Your task to perform on an android device: turn on showing notifications on the lock screen Image 0: 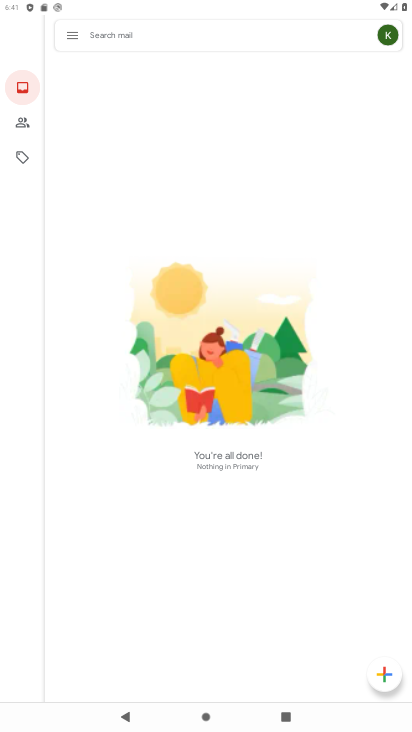
Step 0: press home button
Your task to perform on an android device: turn on showing notifications on the lock screen Image 1: 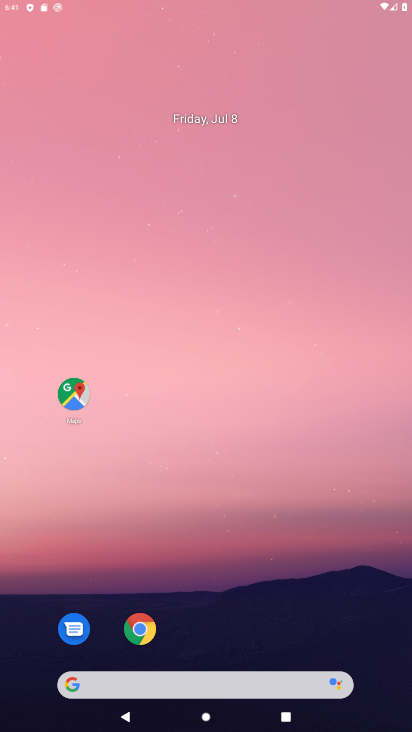
Step 1: drag from (318, 595) to (304, 345)
Your task to perform on an android device: turn on showing notifications on the lock screen Image 2: 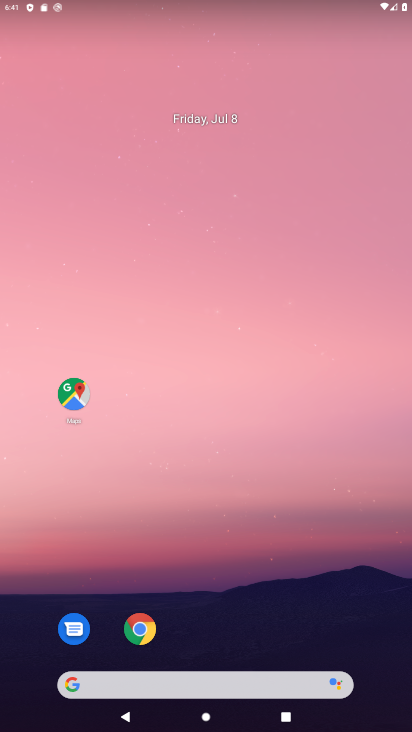
Step 2: drag from (346, 547) to (309, 115)
Your task to perform on an android device: turn on showing notifications on the lock screen Image 3: 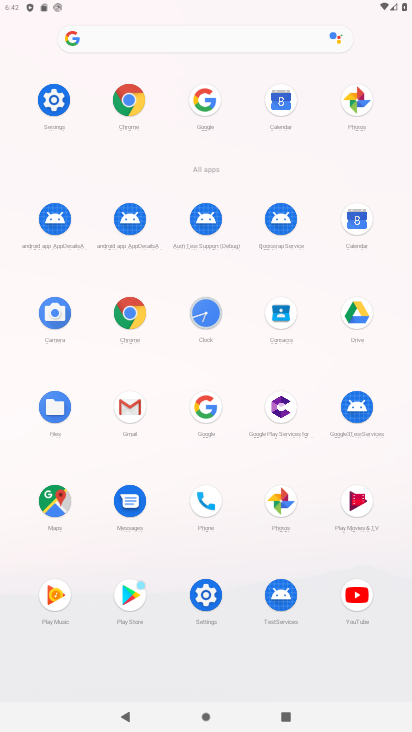
Step 3: click (40, 96)
Your task to perform on an android device: turn on showing notifications on the lock screen Image 4: 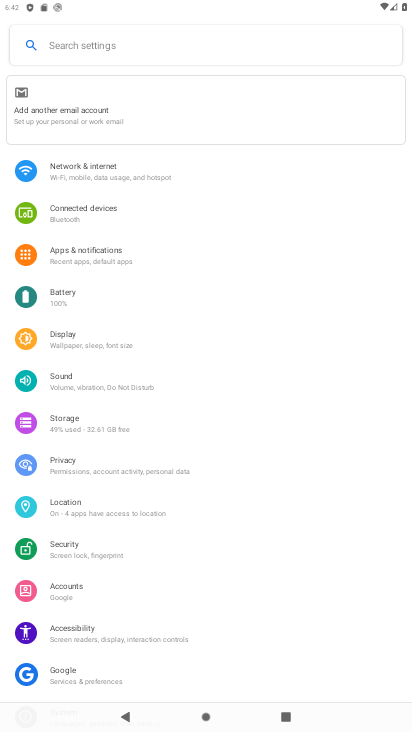
Step 4: click (77, 256)
Your task to perform on an android device: turn on showing notifications on the lock screen Image 5: 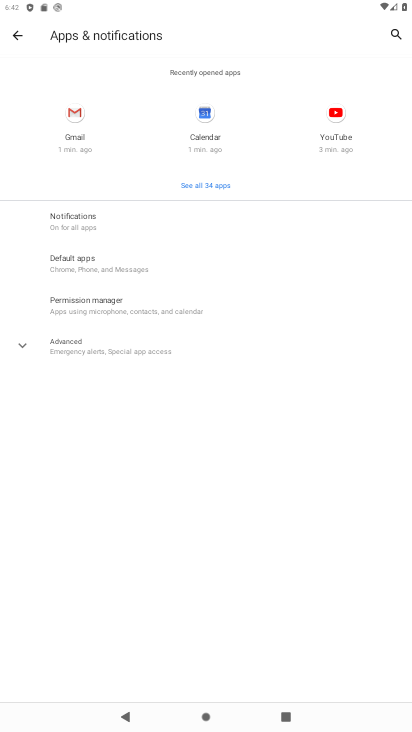
Step 5: click (81, 352)
Your task to perform on an android device: turn on showing notifications on the lock screen Image 6: 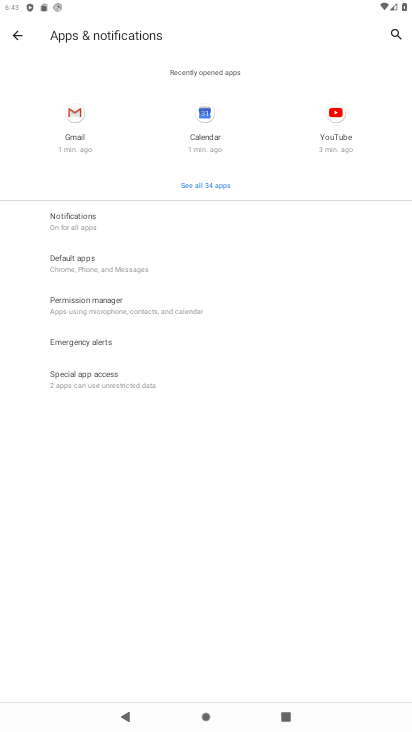
Step 6: click (120, 224)
Your task to perform on an android device: turn on showing notifications on the lock screen Image 7: 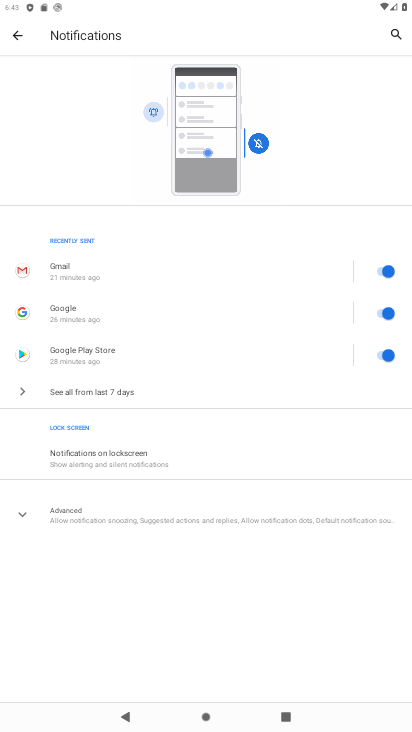
Step 7: click (73, 503)
Your task to perform on an android device: turn on showing notifications on the lock screen Image 8: 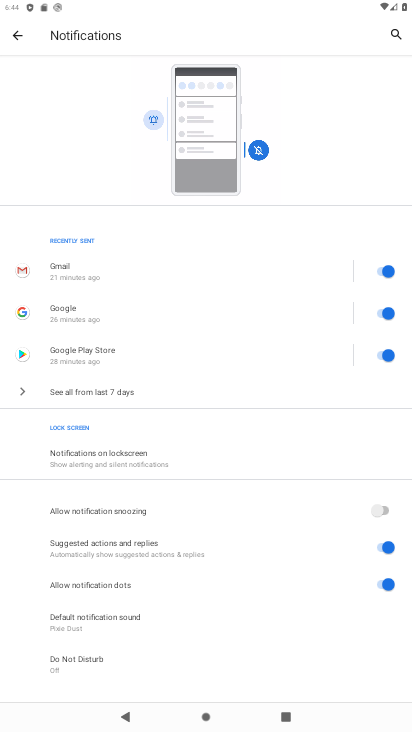
Step 8: click (90, 471)
Your task to perform on an android device: turn on showing notifications on the lock screen Image 9: 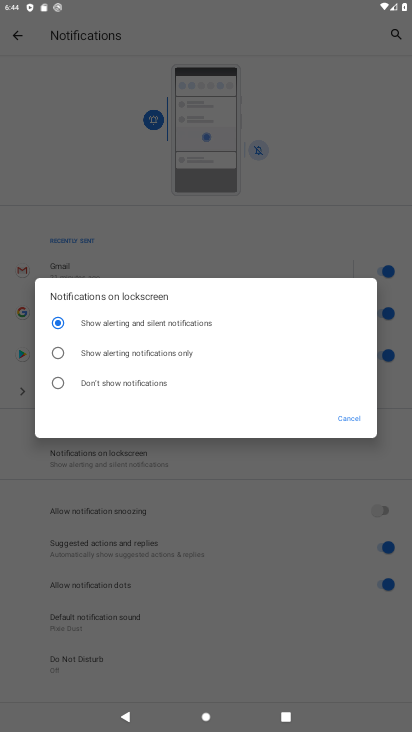
Step 9: click (88, 353)
Your task to perform on an android device: turn on showing notifications on the lock screen Image 10: 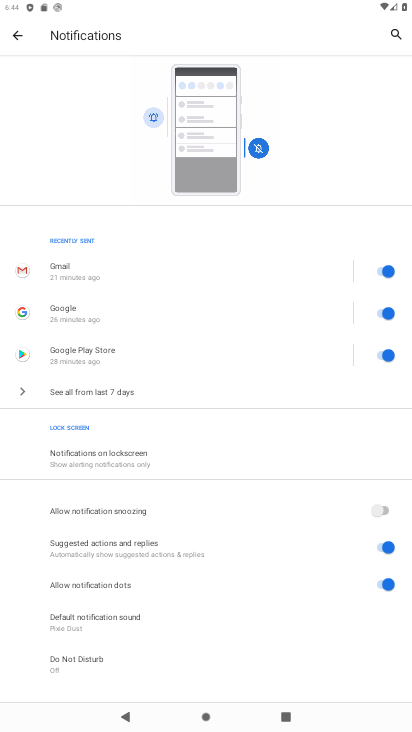
Step 10: task complete